Your task to perform on an android device: Open Yahoo.com Image 0: 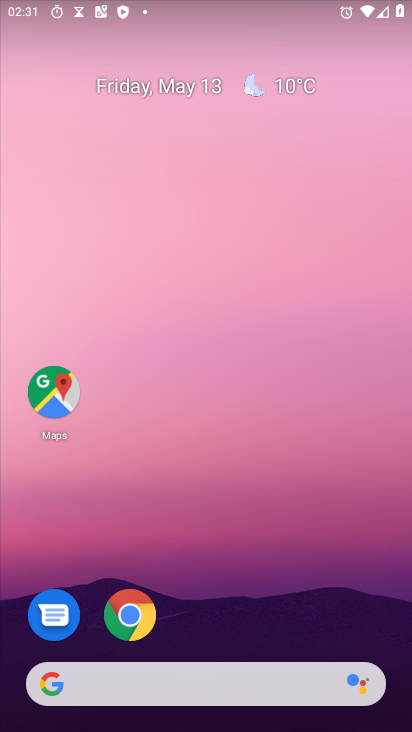
Step 0: click (139, 625)
Your task to perform on an android device: Open Yahoo.com Image 1: 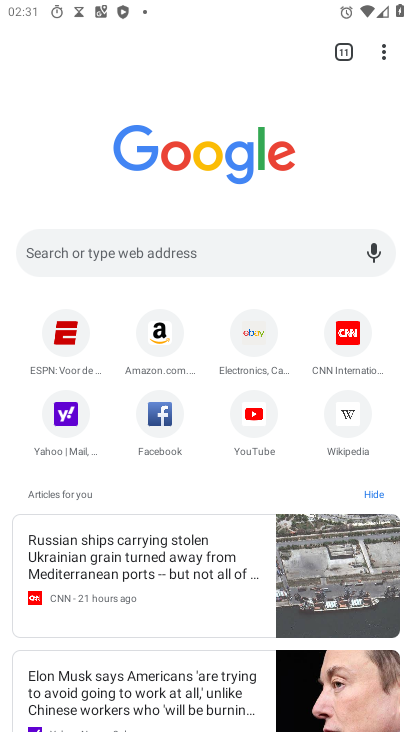
Step 1: click (63, 418)
Your task to perform on an android device: Open Yahoo.com Image 2: 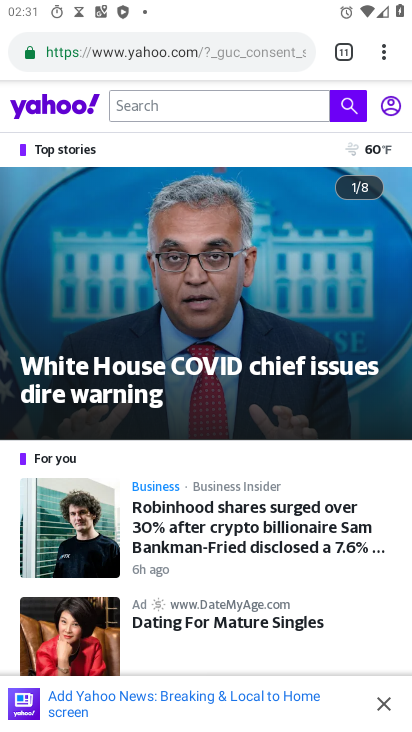
Step 2: task complete